Your task to perform on an android device: turn off notifications settings in the gmail app Image 0: 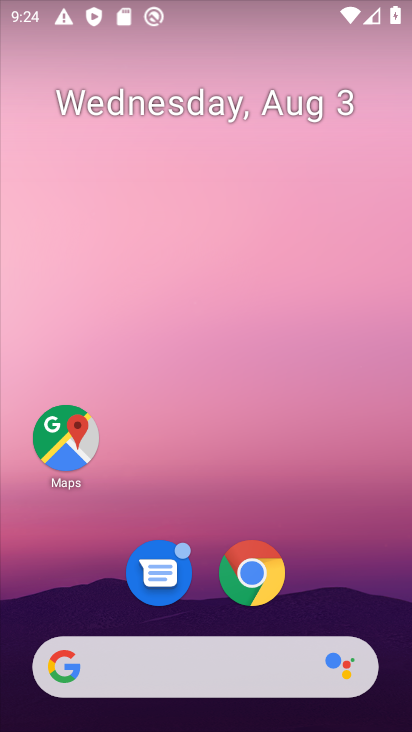
Step 0: drag from (221, 653) to (202, 44)
Your task to perform on an android device: turn off notifications settings in the gmail app Image 1: 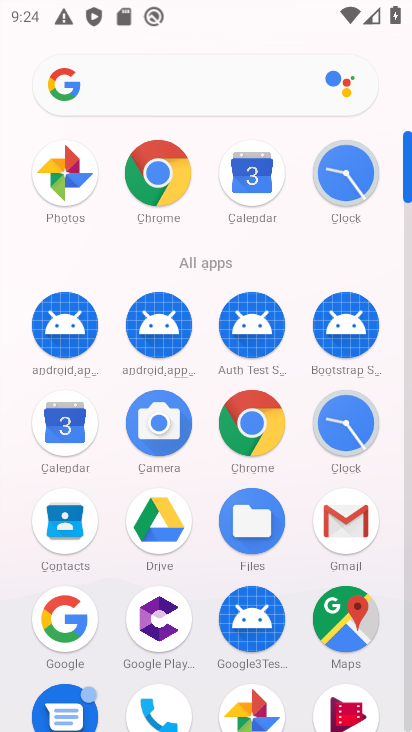
Step 1: click (350, 541)
Your task to perform on an android device: turn off notifications settings in the gmail app Image 2: 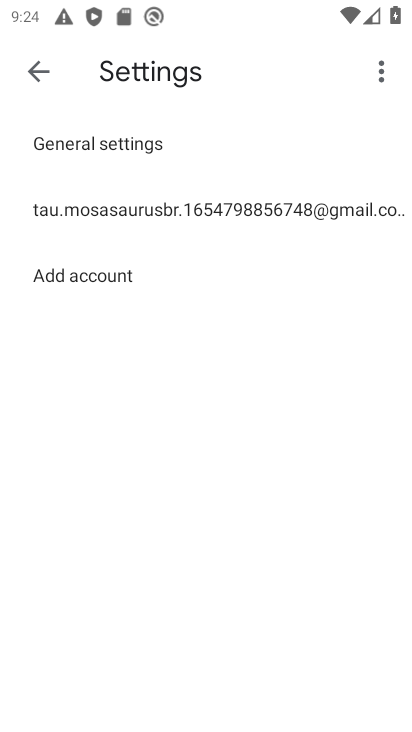
Step 2: click (145, 203)
Your task to perform on an android device: turn off notifications settings in the gmail app Image 3: 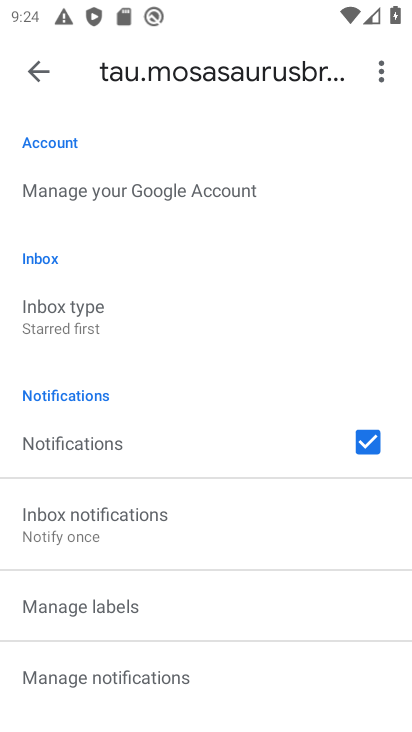
Step 3: click (133, 678)
Your task to perform on an android device: turn off notifications settings in the gmail app Image 4: 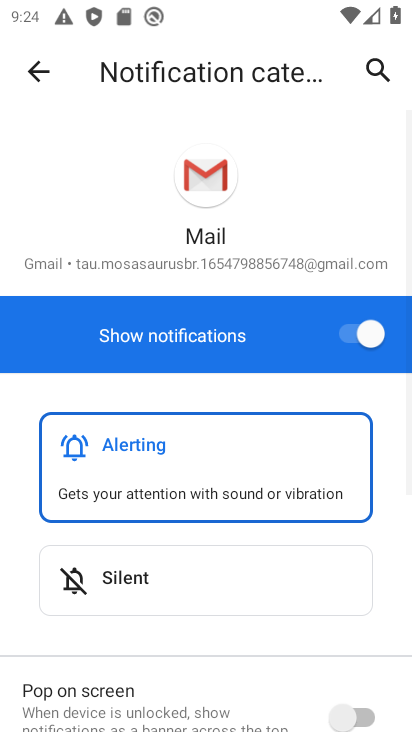
Step 4: click (380, 326)
Your task to perform on an android device: turn off notifications settings in the gmail app Image 5: 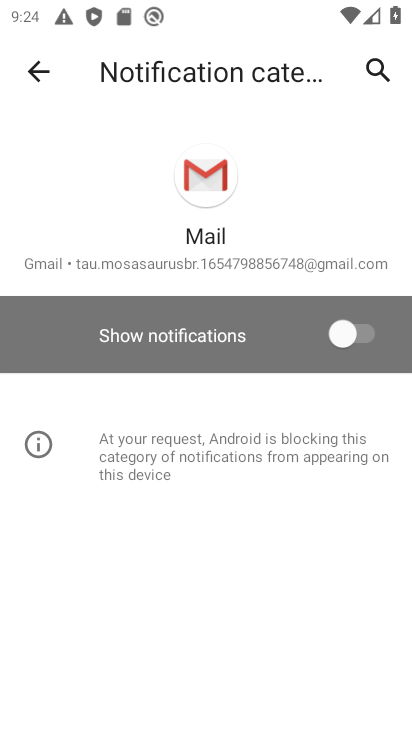
Step 5: task complete